Your task to perform on an android device: Clear the shopping cart on costco. Add razer blade to the cart on costco, then select checkout. Image 0: 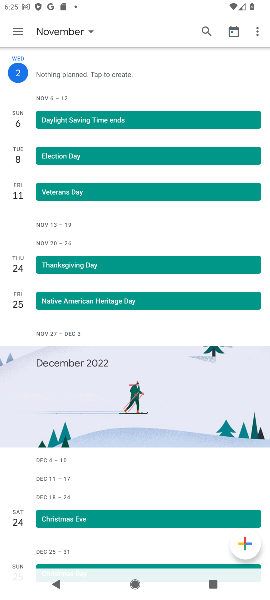
Step 0: press home button
Your task to perform on an android device: Clear the shopping cart on costco. Add razer blade to the cart on costco, then select checkout. Image 1: 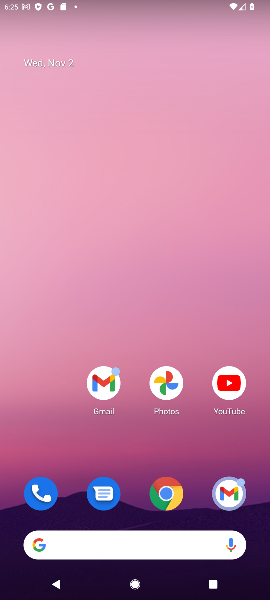
Step 1: drag from (105, 464) to (132, 153)
Your task to perform on an android device: Clear the shopping cart on costco. Add razer blade to the cart on costco, then select checkout. Image 2: 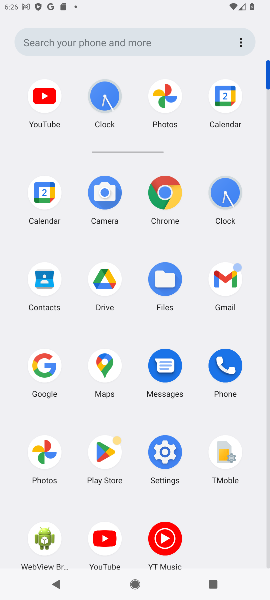
Step 2: click (45, 365)
Your task to perform on an android device: Clear the shopping cart on costco. Add razer blade to the cart on costco, then select checkout. Image 3: 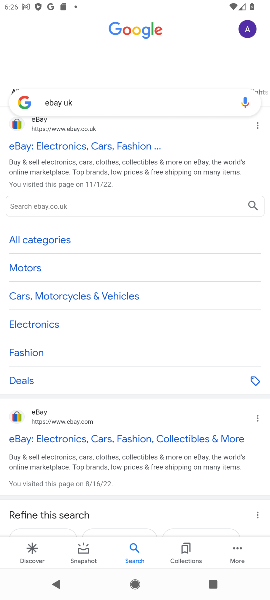
Step 3: click (68, 98)
Your task to perform on an android device: Clear the shopping cart on costco. Add razer blade to the cart on costco, then select checkout. Image 4: 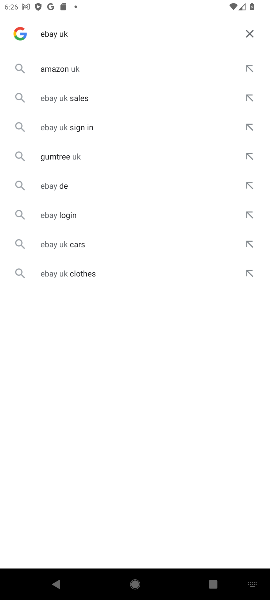
Step 4: click (244, 32)
Your task to perform on an android device: Clear the shopping cart on costco. Add razer blade to the cart on costco, then select checkout. Image 5: 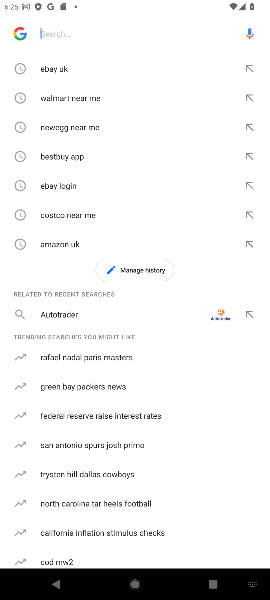
Step 5: click (63, 31)
Your task to perform on an android device: Clear the shopping cart on costco. Add razer blade to the cart on costco, then select checkout. Image 6: 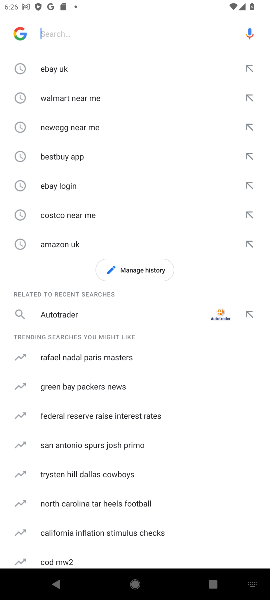
Step 6: type "costco "
Your task to perform on an android device: Clear the shopping cart on costco. Add razer blade to the cart on costco, then select checkout. Image 7: 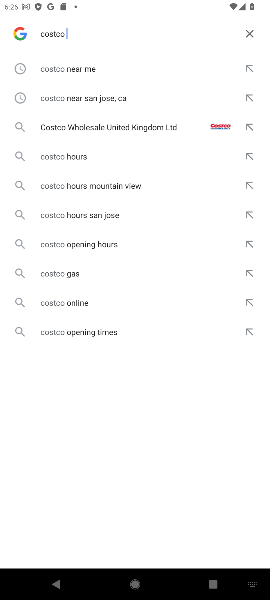
Step 7: click (77, 64)
Your task to perform on an android device: Clear the shopping cart on costco. Add razer blade to the cart on costco, then select checkout. Image 8: 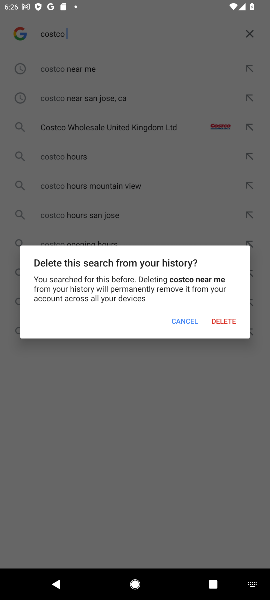
Step 8: click (179, 322)
Your task to perform on an android device: Clear the shopping cart on costco. Add razer blade to the cart on costco, then select checkout. Image 9: 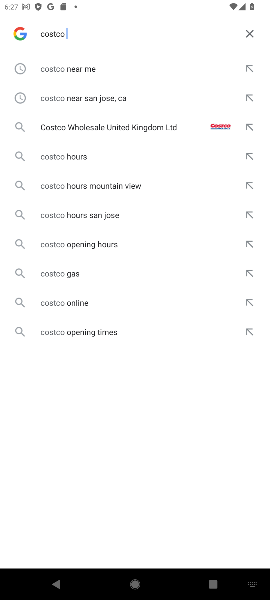
Step 9: click (66, 75)
Your task to perform on an android device: Clear the shopping cart on costco. Add razer blade to the cart on costco, then select checkout. Image 10: 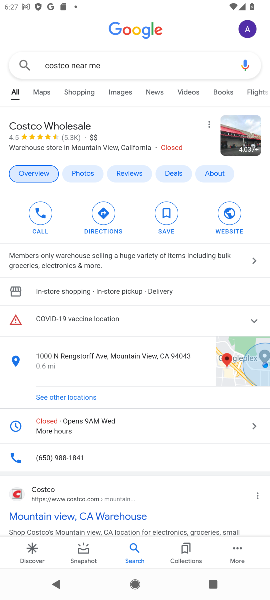
Step 10: click (15, 494)
Your task to perform on an android device: Clear the shopping cart on costco. Add razer blade to the cart on costco, then select checkout. Image 11: 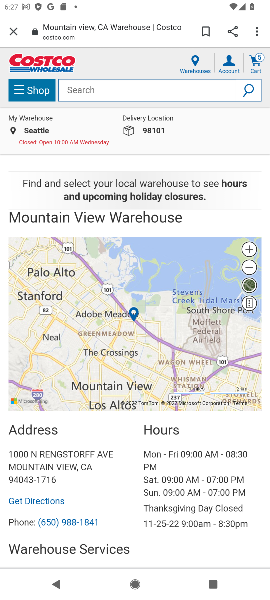
Step 11: click (113, 88)
Your task to perform on an android device: Clear the shopping cart on costco. Add razer blade to the cart on costco, then select checkout. Image 12: 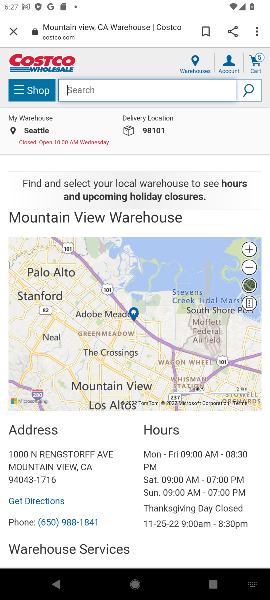
Step 12: click (118, 83)
Your task to perform on an android device: Clear the shopping cart on costco. Add razer blade to the cart on costco, then select checkout. Image 13: 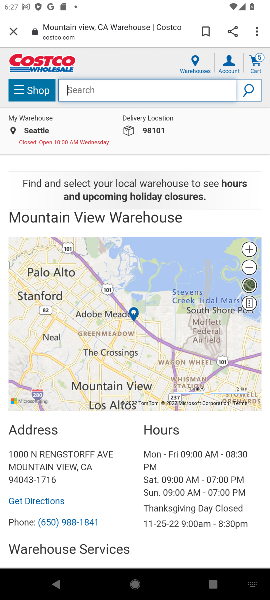
Step 13: type "razer blade  "
Your task to perform on an android device: Clear the shopping cart on costco. Add razer blade to the cart on costco, then select checkout. Image 14: 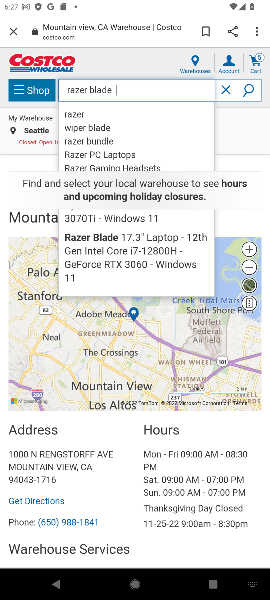
Step 14: click (79, 113)
Your task to perform on an android device: Clear the shopping cart on costco. Add razer blade to the cart on costco, then select checkout. Image 15: 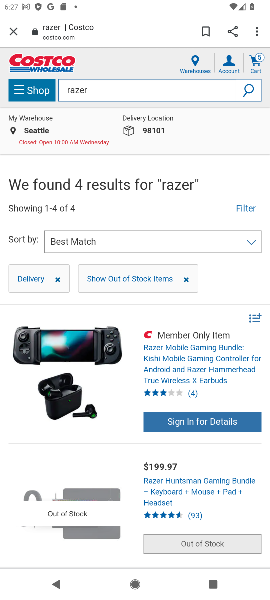
Step 15: drag from (91, 503) to (147, 195)
Your task to perform on an android device: Clear the shopping cart on costco. Add razer blade to the cart on costco, then select checkout. Image 16: 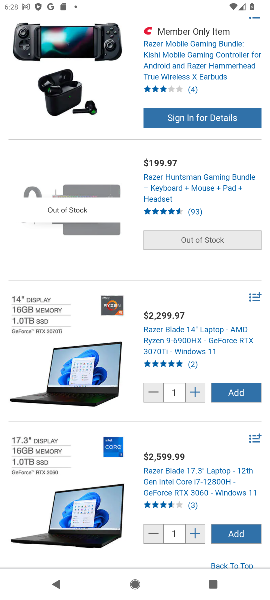
Step 16: click (237, 385)
Your task to perform on an android device: Clear the shopping cart on costco. Add razer blade to the cart on costco, then select checkout. Image 17: 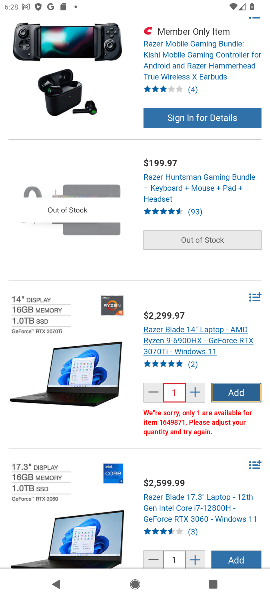
Step 17: click (216, 390)
Your task to perform on an android device: Clear the shopping cart on costco. Add razer blade to the cart on costco, then select checkout. Image 18: 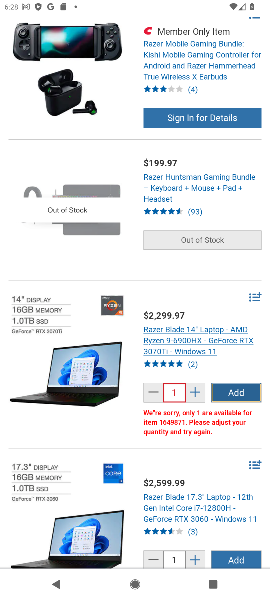
Step 18: task complete